Your task to perform on an android device: set the stopwatch Image 0: 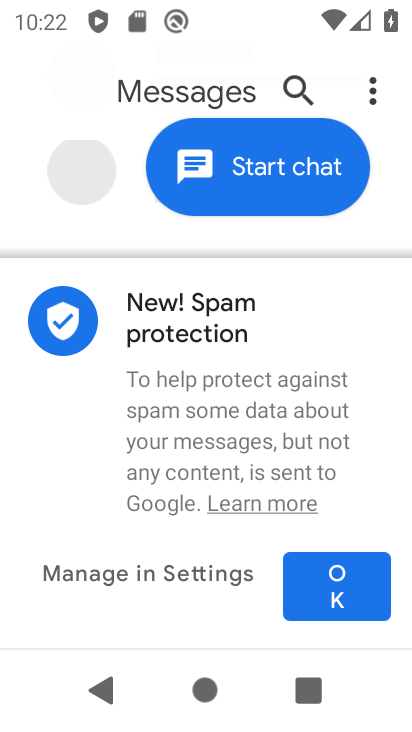
Step 0: click (346, 585)
Your task to perform on an android device: set the stopwatch Image 1: 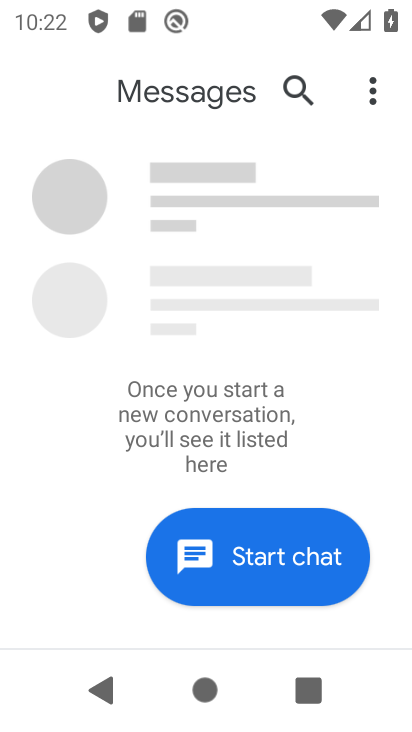
Step 1: press home button
Your task to perform on an android device: set the stopwatch Image 2: 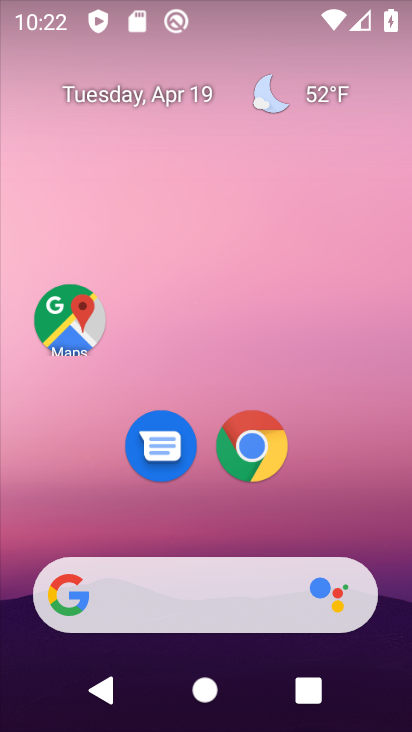
Step 2: click (358, 112)
Your task to perform on an android device: set the stopwatch Image 3: 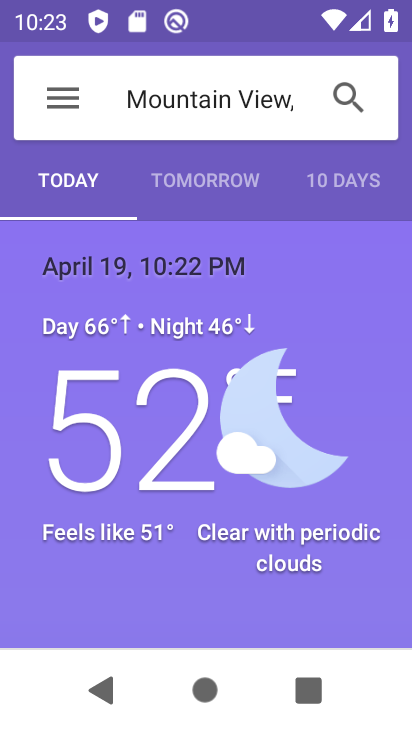
Step 3: press home button
Your task to perform on an android device: set the stopwatch Image 4: 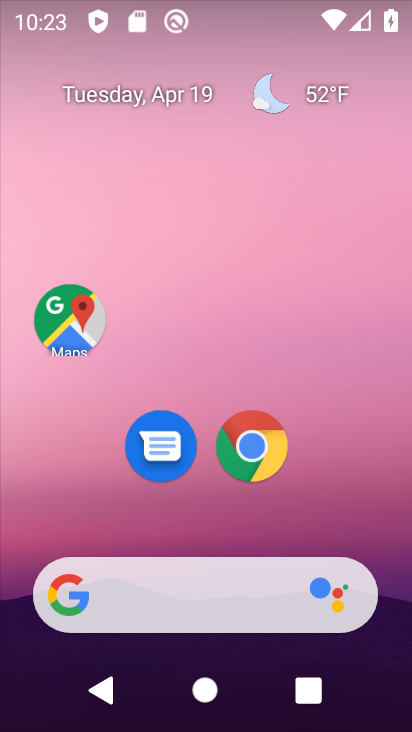
Step 4: drag from (373, 472) to (369, 131)
Your task to perform on an android device: set the stopwatch Image 5: 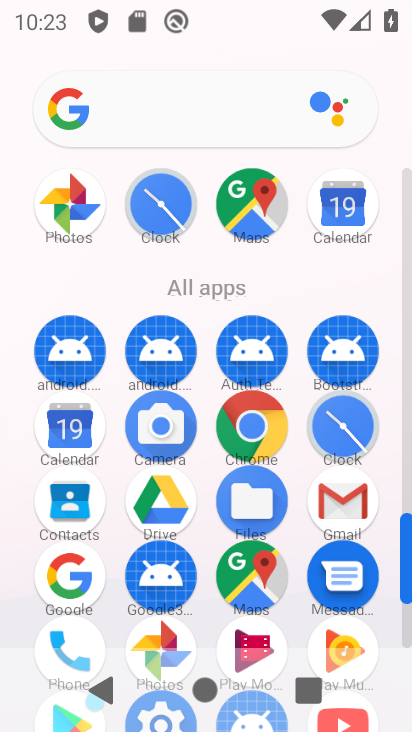
Step 5: click (335, 439)
Your task to perform on an android device: set the stopwatch Image 6: 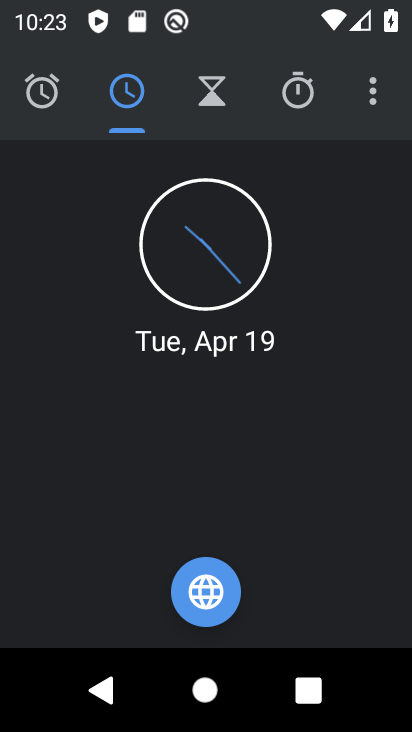
Step 6: click (303, 80)
Your task to perform on an android device: set the stopwatch Image 7: 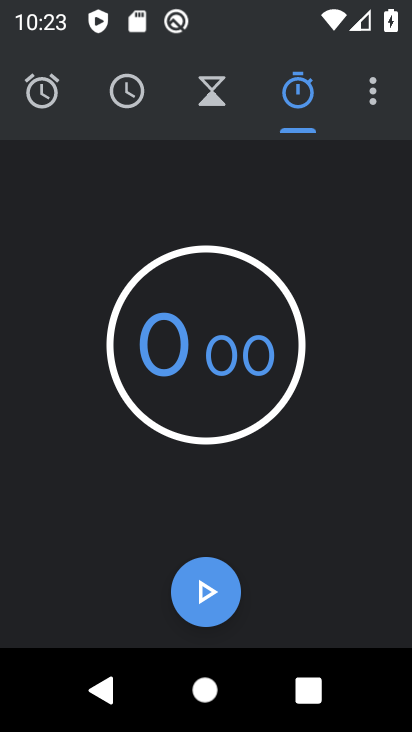
Step 7: click (218, 582)
Your task to perform on an android device: set the stopwatch Image 8: 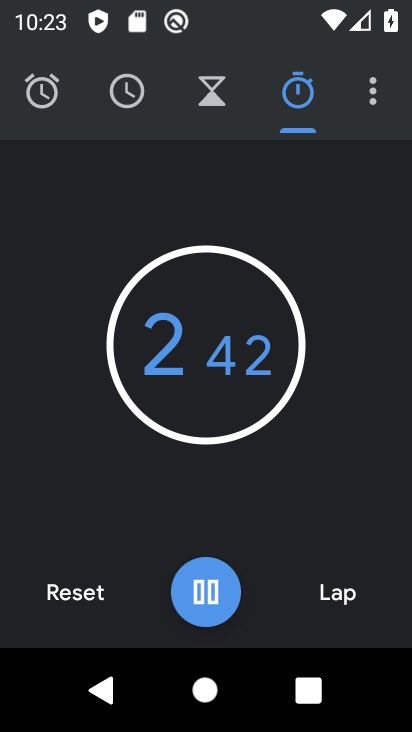
Step 8: task complete